Your task to perform on an android device: all mails in gmail Image 0: 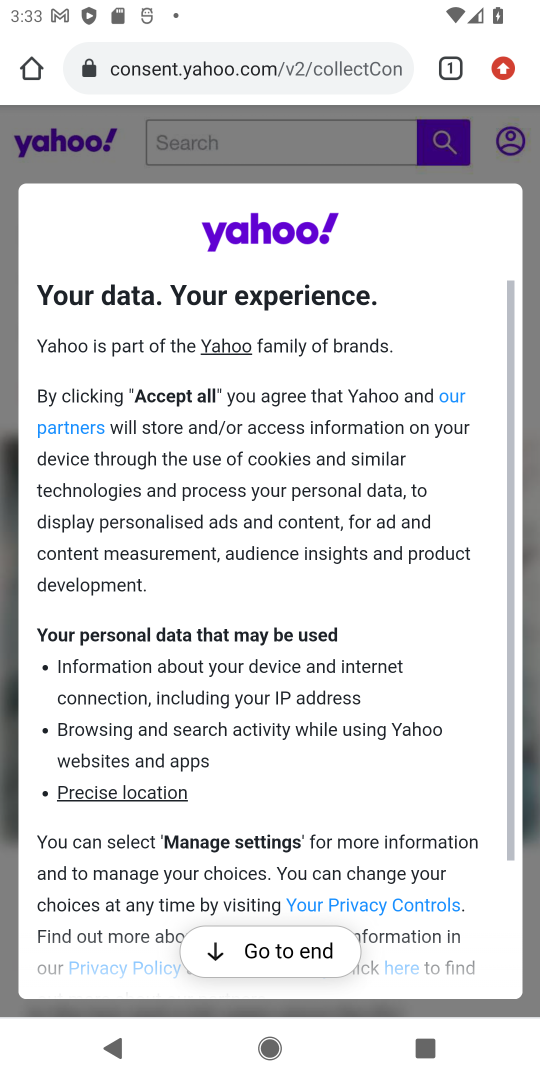
Step 0: press home button
Your task to perform on an android device: all mails in gmail Image 1: 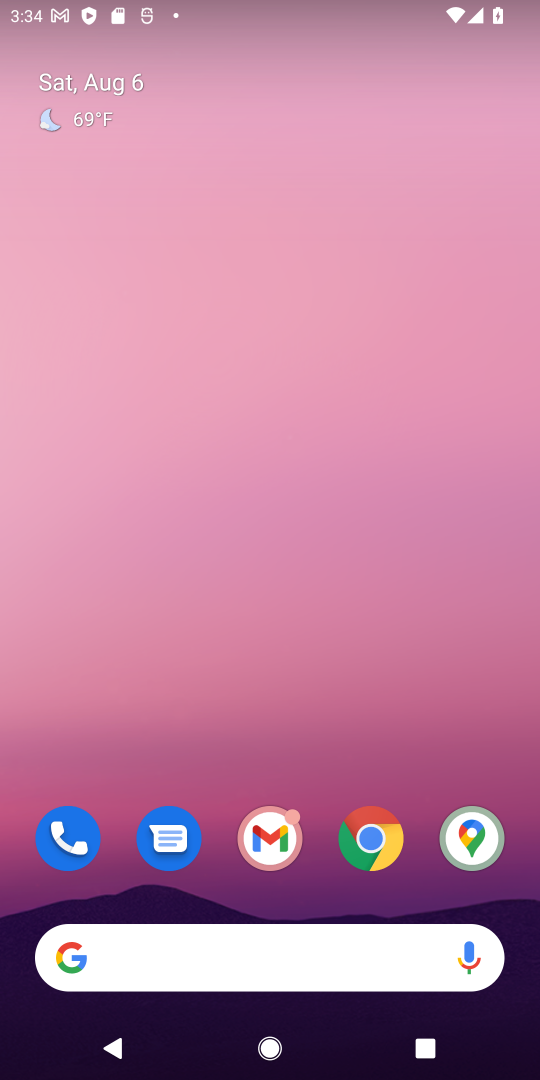
Step 1: click (257, 828)
Your task to perform on an android device: all mails in gmail Image 2: 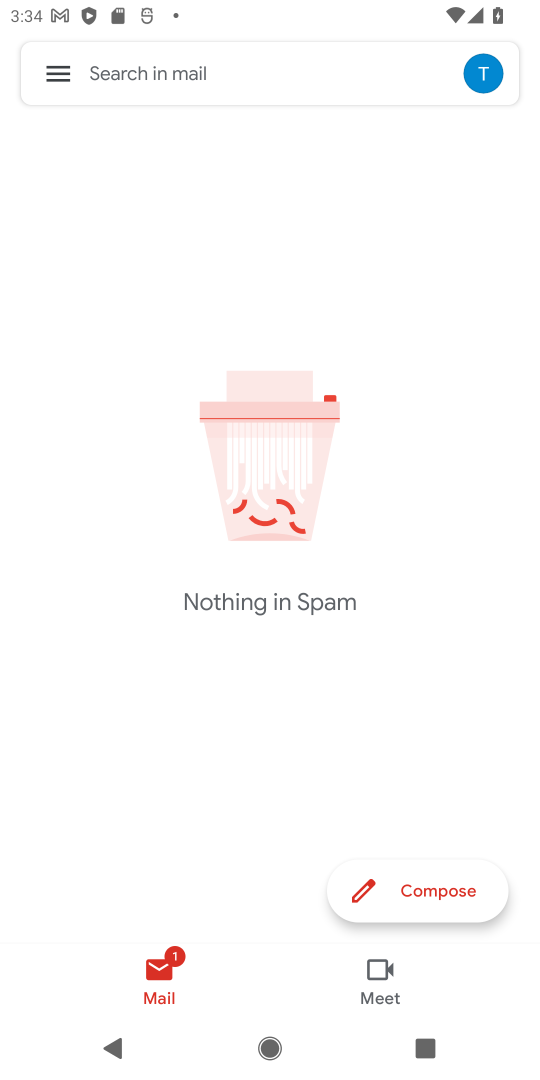
Step 2: click (64, 63)
Your task to perform on an android device: all mails in gmail Image 3: 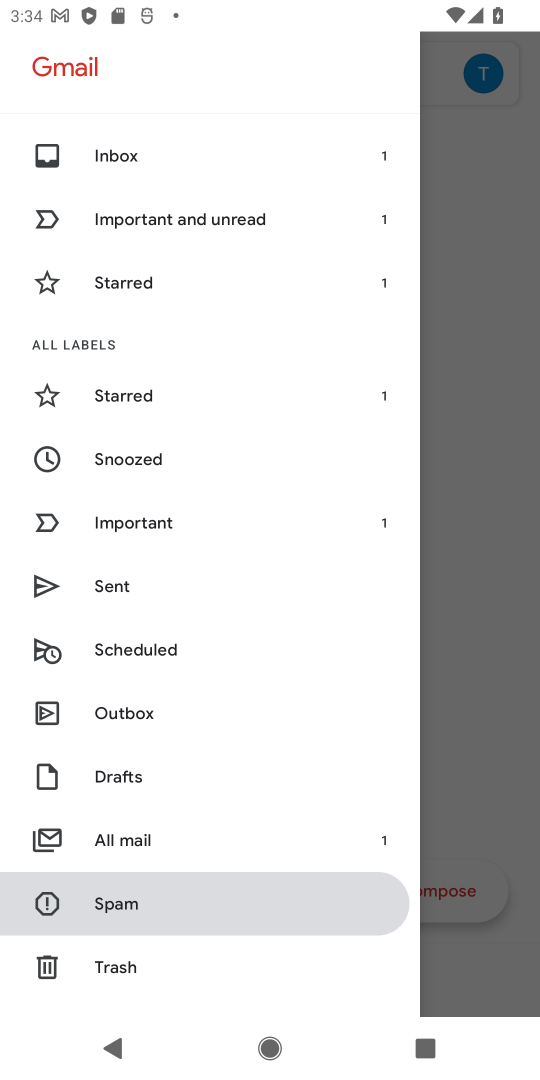
Step 3: click (129, 149)
Your task to perform on an android device: all mails in gmail Image 4: 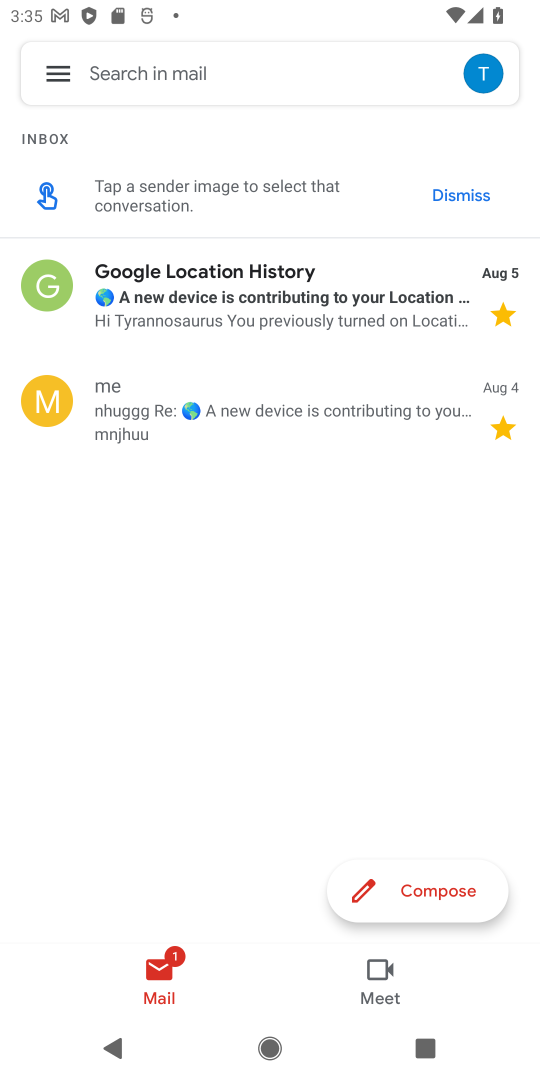
Step 4: task complete